Your task to perform on an android device: Go to location settings Image 0: 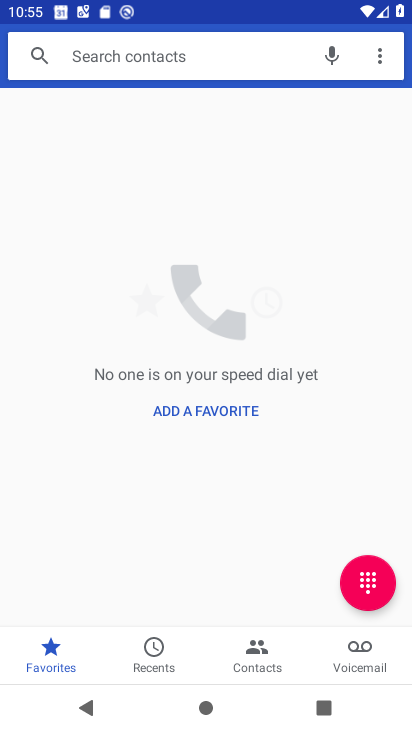
Step 0: press home button
Your task to perform on an android device: Go to location settings Image 1: 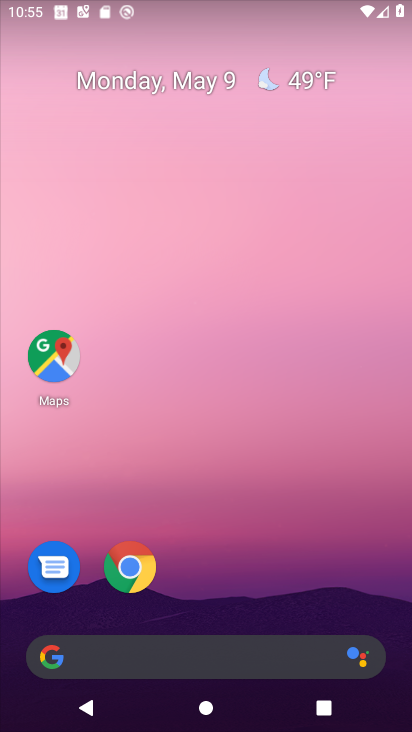
Step 1: drag from (168, 641) to (160, 262)
Your task to perform on an android device: Go to location settings Image 2: 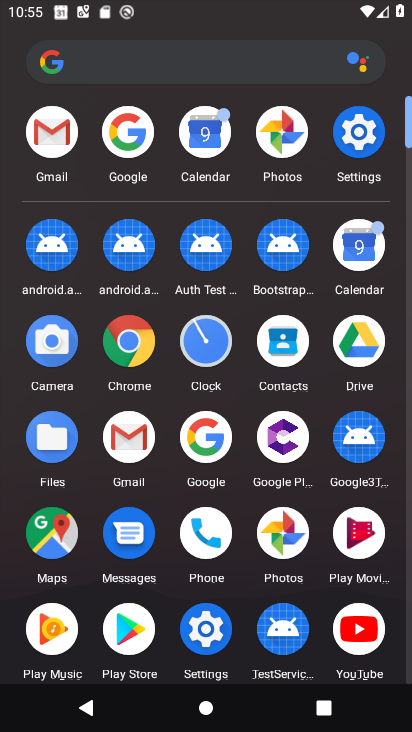
Step 2: click (358, 137)
Your task to perform on an android device: Go to location settings Image 3: 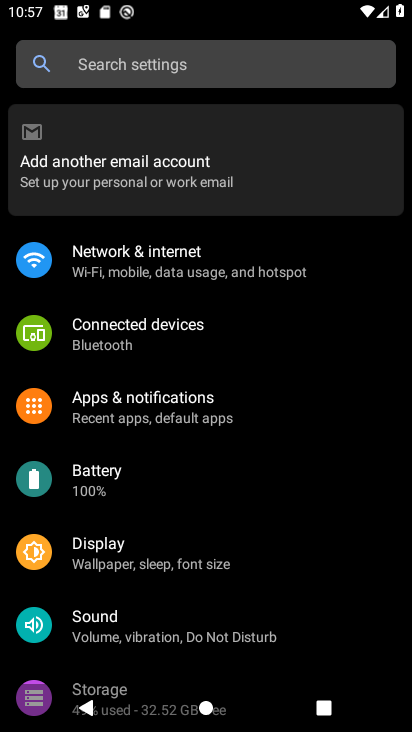
Step 3: drag from (122, 671) to (138, 366)
Your task to perform on an android device: Go to location settings Image 4: 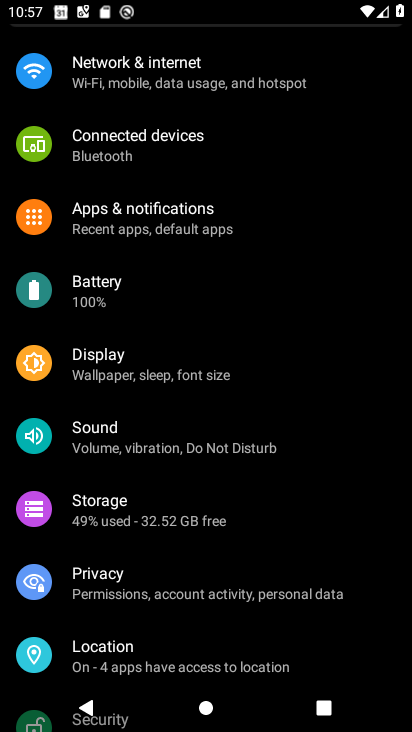
Step 4: click (123, 651)
Your task to perform on an android device: Go to location settings Image 5: 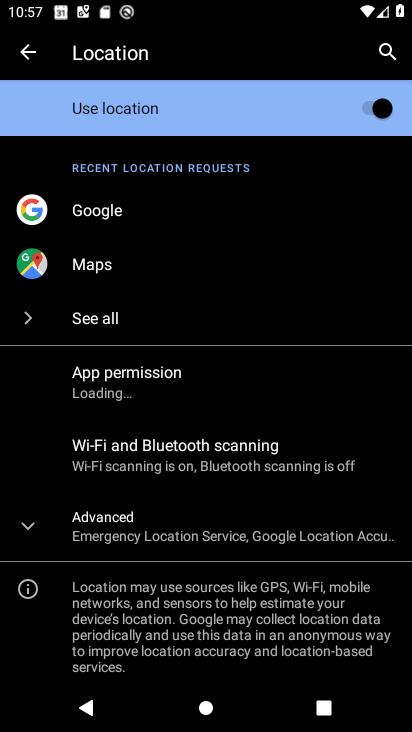
Step 5: drag from (203, 618) to (199, 403)
Your task to perform on an android device: Go to location settings Image 6: 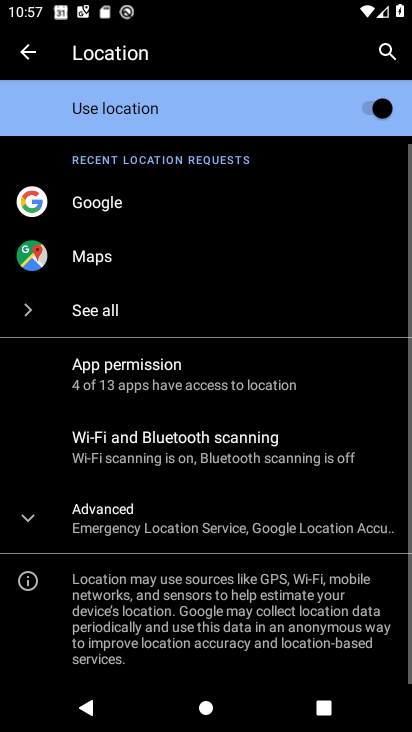
Step 6: click (146, 511)
Your task to perform on an android device: Go to location settings Image 7: 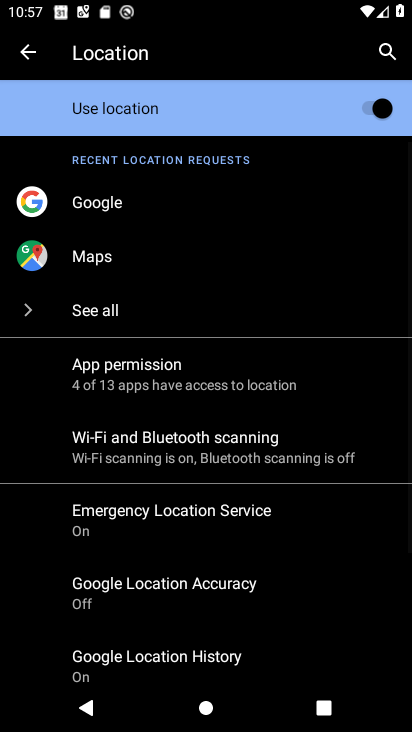
Step 7: task complete